Your task to perform on an android device: turn off priority inbox in the gmail app Image 0: 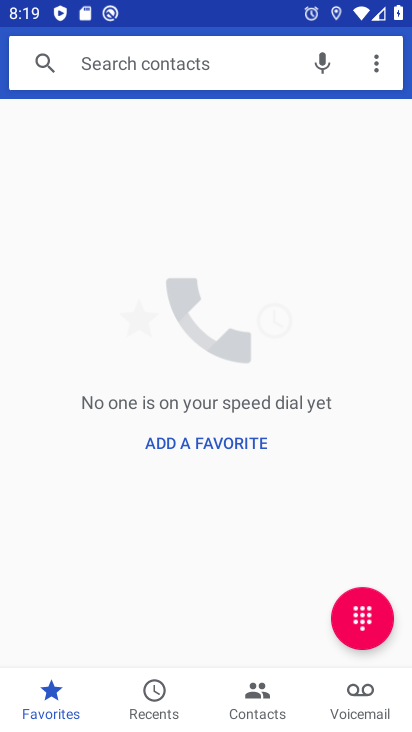
Step 0: press home button
Your task to perform on an android device: turn off priority inbox in the gmail app Image 1: 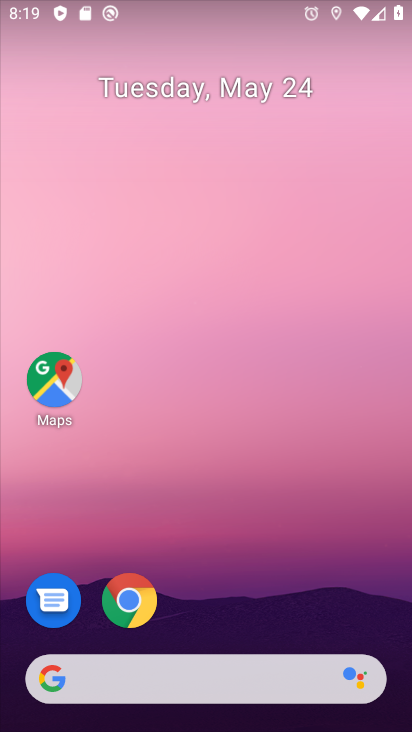
Step 1: drag from (205, 727) to (210, 92)
Your task to perform on an android device: turn off priority inbox in the gmail app Image 2: 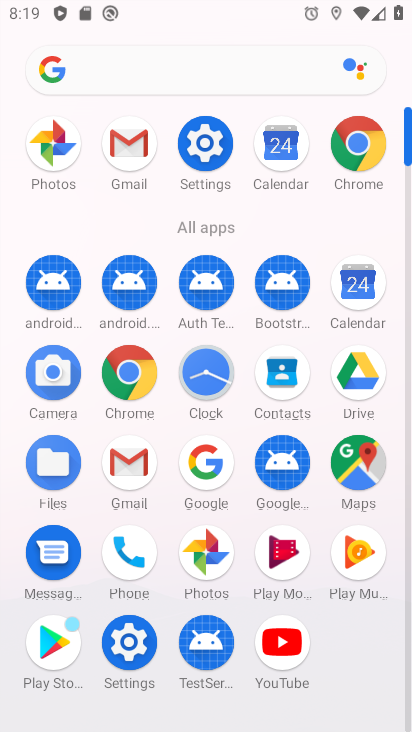
Step 2: click (128, 147)
Your task to perform on an android device: turn off priority inbox in the gmail app Image 3: 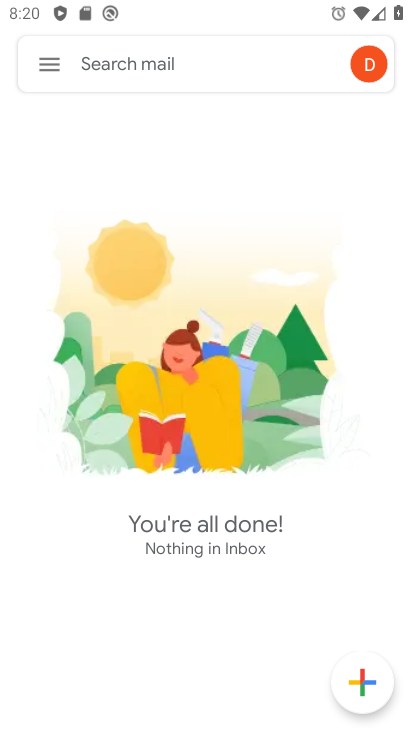
Step 3: click (44, 73)
Your task to perform on an android device: turn off priority inbox in the gmail app Image 4: 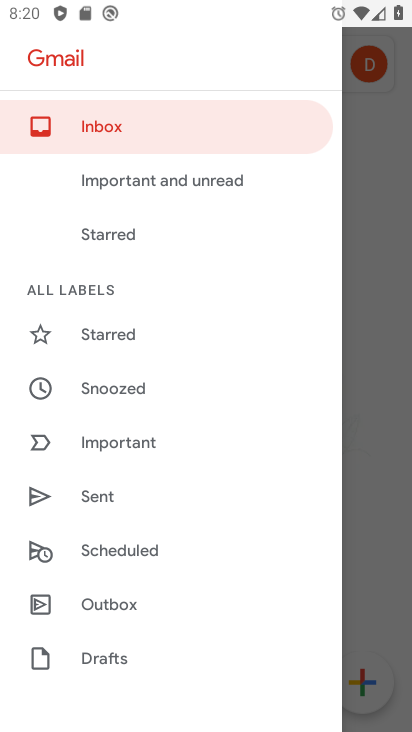
Step 4: drag from (115, 644) to (115, 244)
Your task to perform on an android device: turn off priority inbox in the gmail app Image 5: 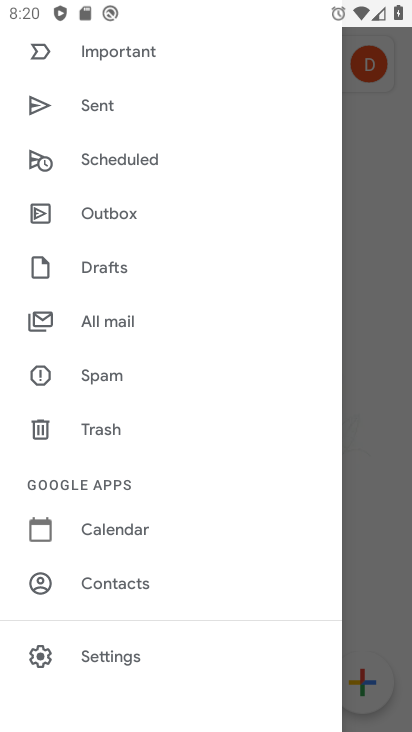
Step 5: click (102, 657)
Your task to perform on an android device: turn off priority inbox in the gmail app Image 6: 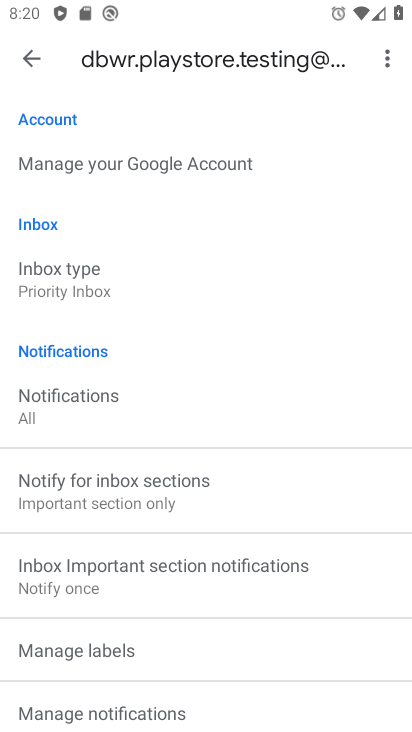
Step 6: click (82, 287)
Your task to perform on an android device: turn off priority inbox in the gmail app Image 7: 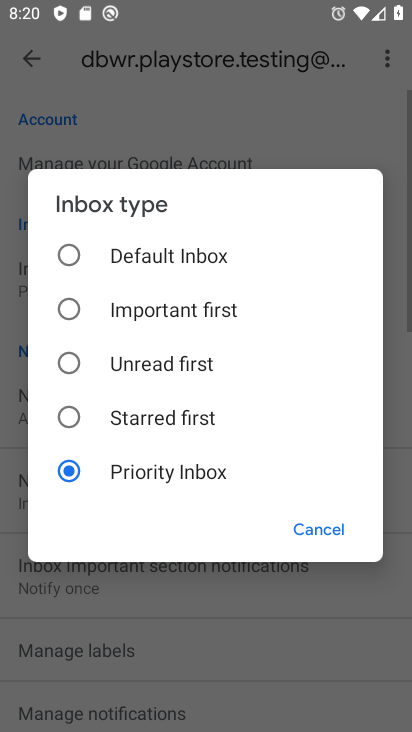
Step 7: click (65, 256)
Your task to perform on an android device: turn off priority inbox in the gmail app Image 8: 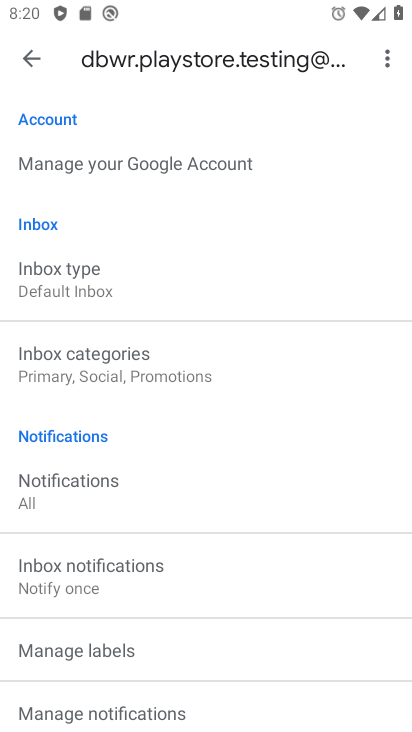
Step 8: task complete